Your task to perform on an android device: Open Chrome and go to settings Image 0: 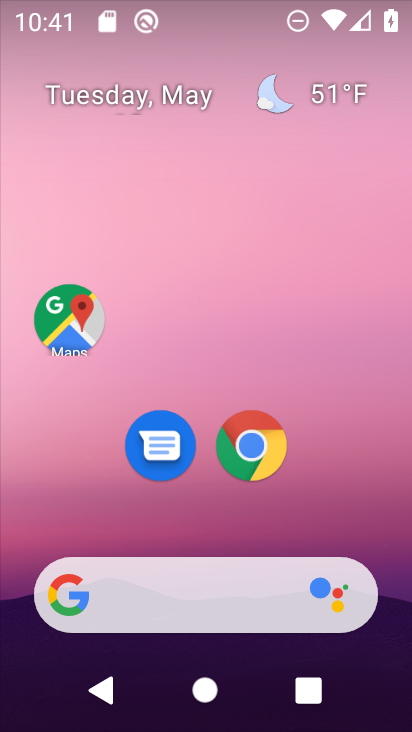
Step 0: click (258, 430)
Your task to perform on an android device: Open Chrome and go to settings Image 1: 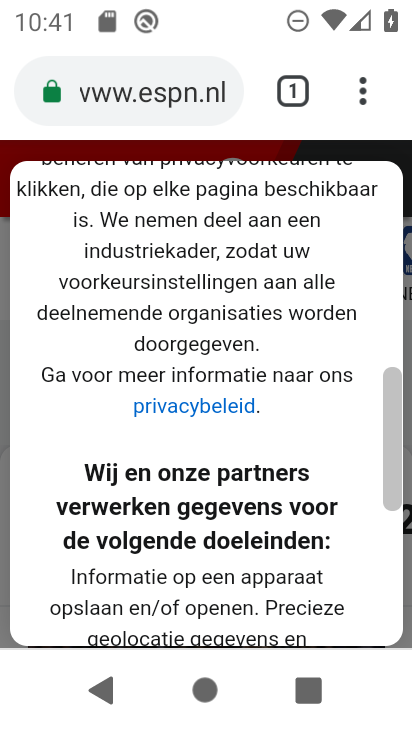
Step 1: task complete